Your task to perform on an android device: Go to Amazon Image 0: 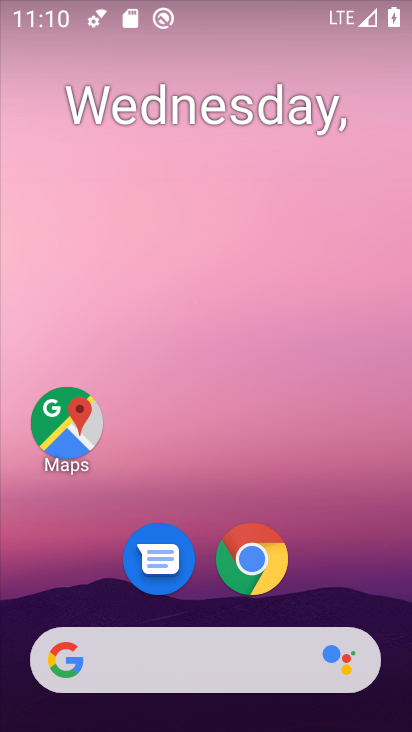
Step 0: drag from (253, 676) to (310, 54)
Your task to perform on an android device: Go to Amazon Image 1: 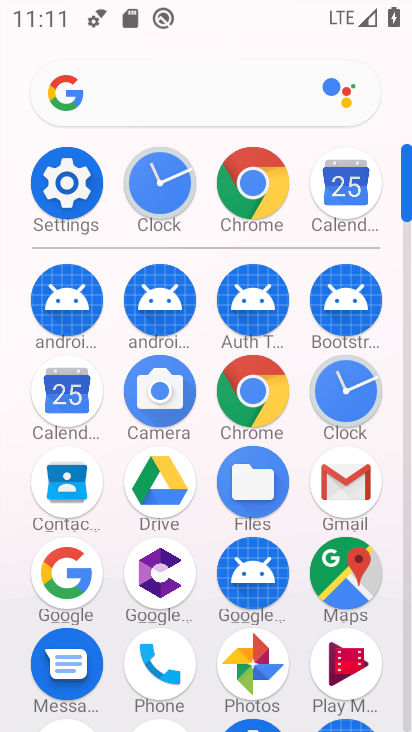
Step 1: click (241, 206)
Your task to perform on an android device: Go to Amazon Image 2: 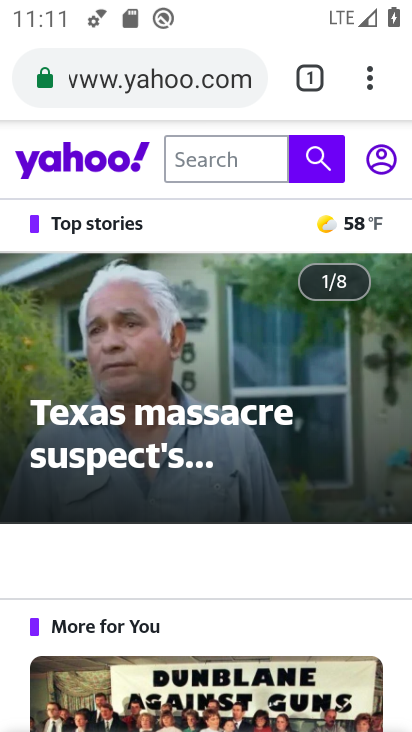
Step 2: click (320, 70)
Your task to perform on an android device: Go to Amazon Image 3: 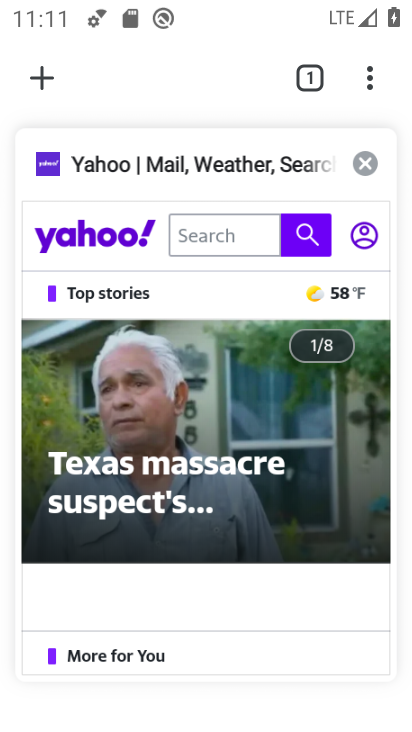
Step 3: click (47, 79)
Your task to perform on an android device: Go to Amazon Image 4: 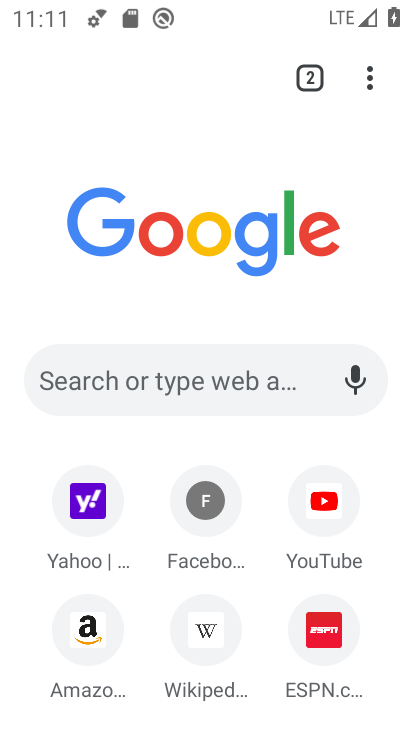
Step 4: click (90, 619)
Your task to perform on an android device: Go to Amazon Image 5: 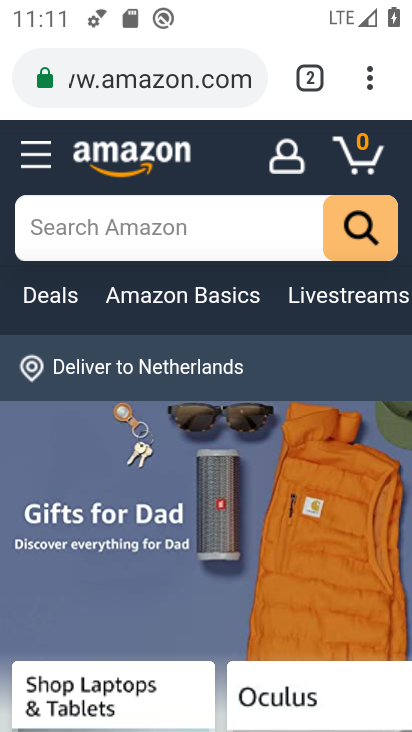
Step 5: task complete